Your task to perform on an android device: Open the web browser Image 0: 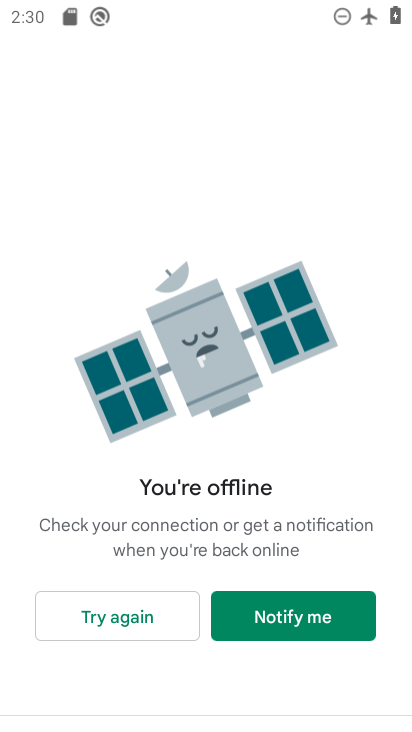
Step 0: press home button
Your task to perform on an android device: Open the web browser Image 1: 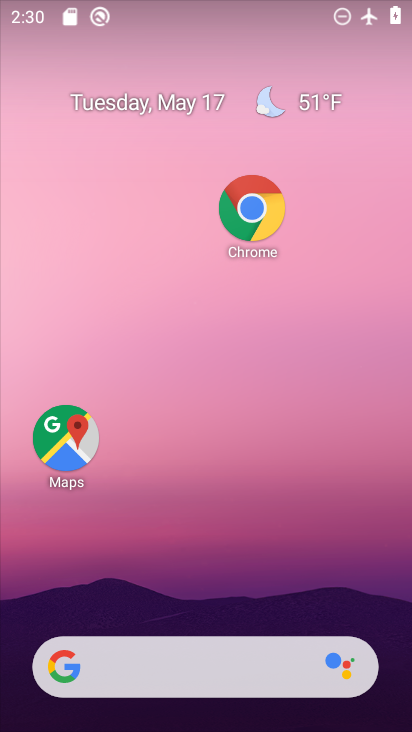
Step 1: click (206, 663)
Your task to perform on an android device: Open the web browser Image 2: 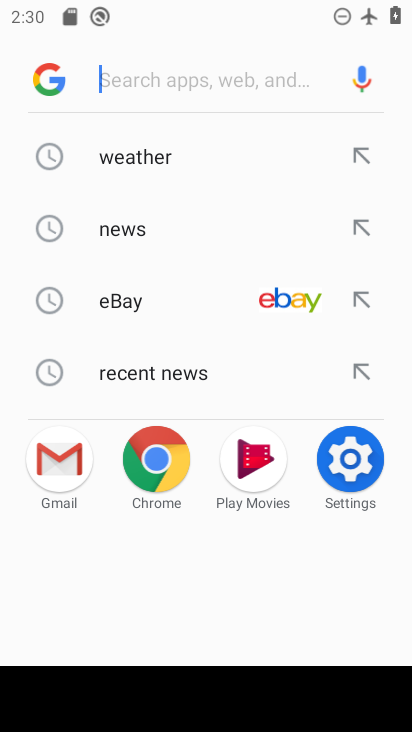
Step 2: task complete